Your task to perform on an android device: empty trash in the gmail app Image 0: 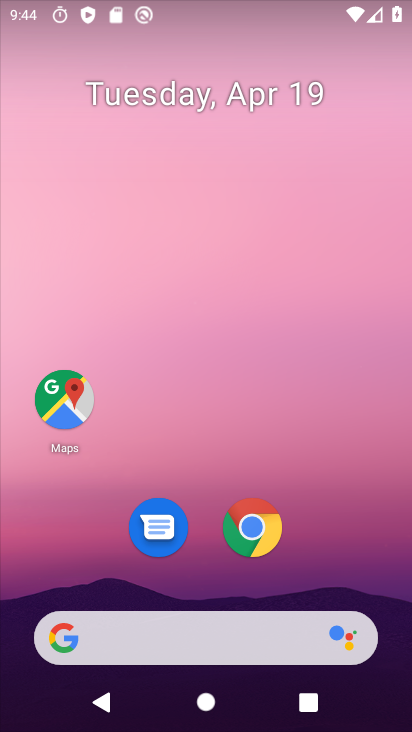
Step 0: drag from (241, 666) to (236, 173)
Your task to perform on an android device: empty trash in the gmail app Image 1: 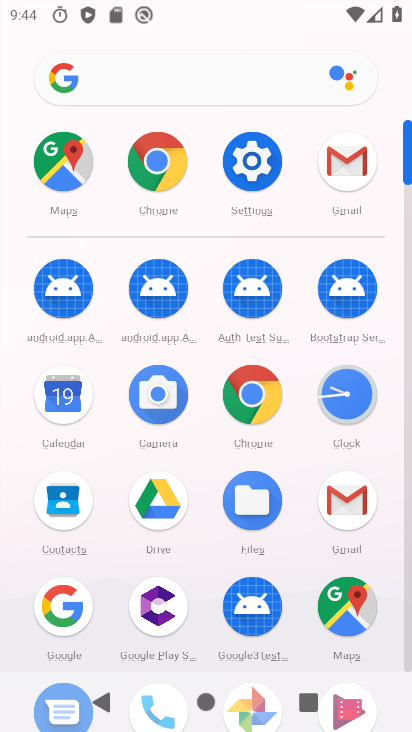
Step 1: click (352, 485)
Your task to perform on an android device: empty trash in the gmail app Image 2: 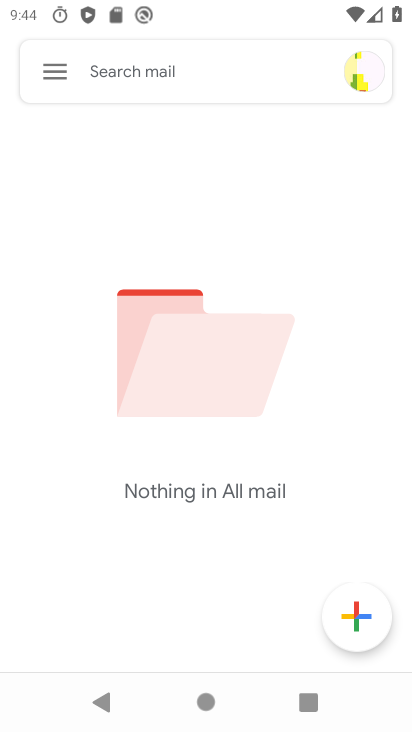
Step 2: click (42, 61)
Your task to perform on an android device: empty trash in the gmail app Image 3: 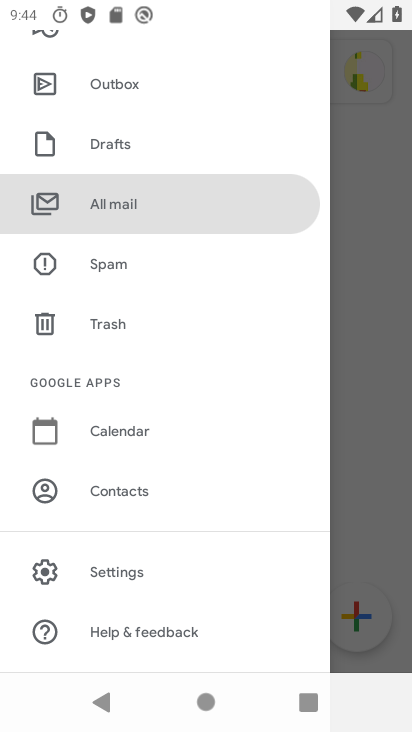
Step 3: click (127, 331)
Your task to perform on an android device: empty trash in the gmail app Image 4: 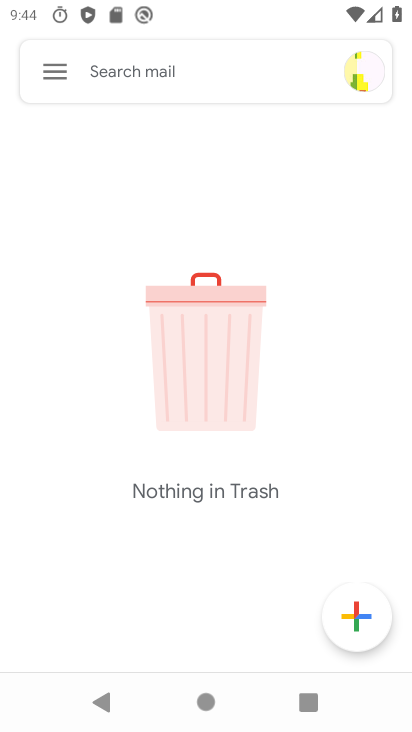
Step 4: task complete